Your task to perform on an android device: Go to settings Image 0: 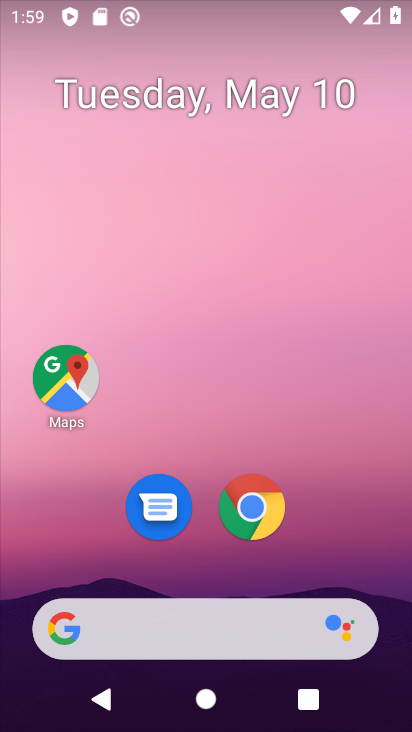
Step 0: drag from (231, 570) to (231, 207)
Your task to perform on an android device: Go to settings Image 1: 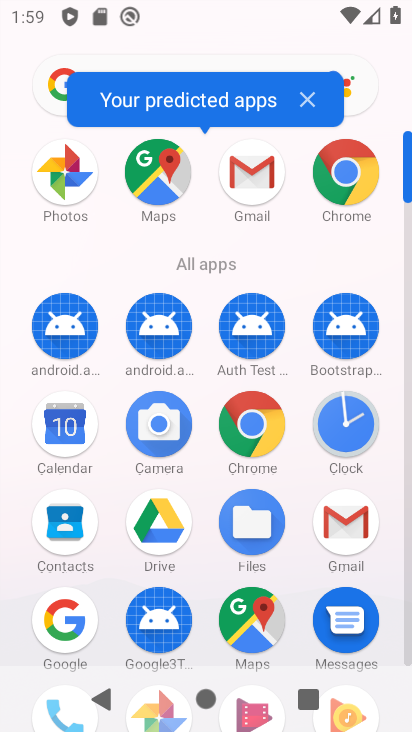
Step 1: drag from (104, 555) to (124, 256)
Your task to perform on an android device: Go to settings Image 2: 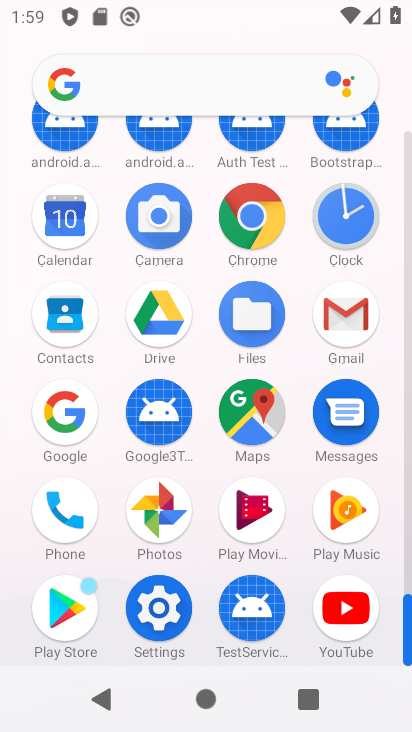
Step 2: click (156, 614)
Your task to perform on an android device: Go to settings Image 3: 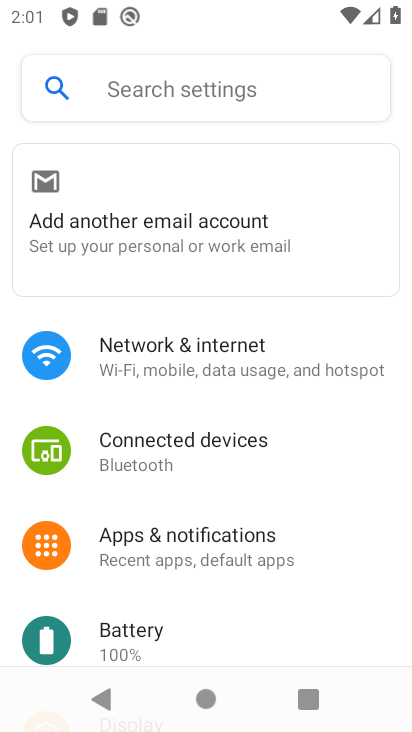
Step 3: task complete